Your task to perform on an android device: Open location settings Image 0: 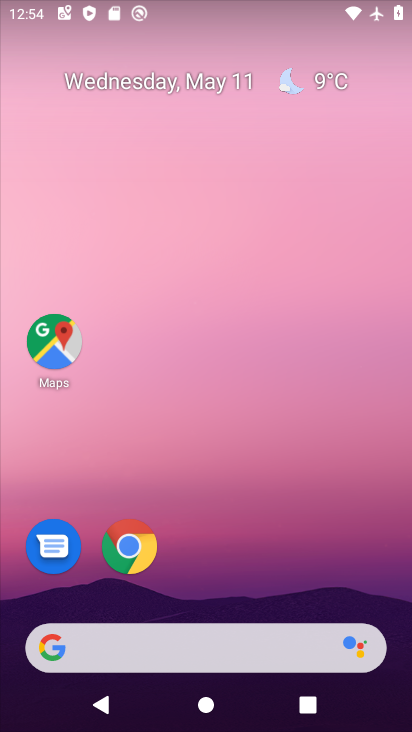
Step 0: drag from (337, 664) to (347, 67)
Your task to perform on an android device: Open location settings Image 1: 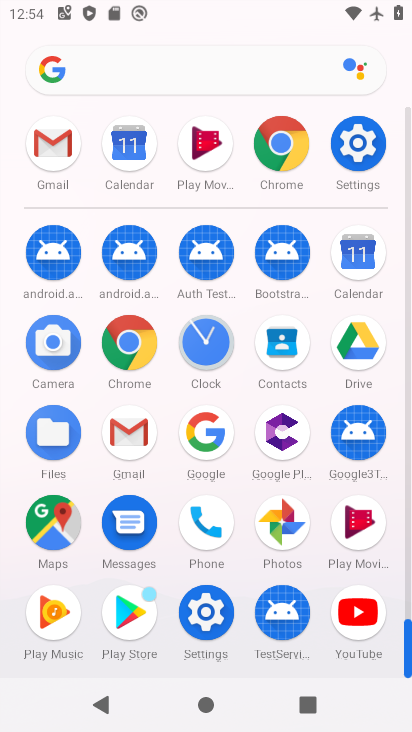
Step 1: click (370, 150)
Your task to perform on an android device: Open location settings Image 2: 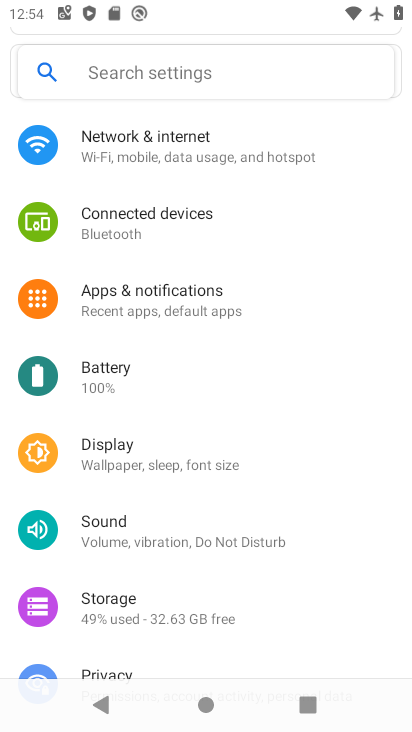
Step 2: drag from (226, 642) to (223, 217)
Your task to perform on an android device: Open location settings Image 3: 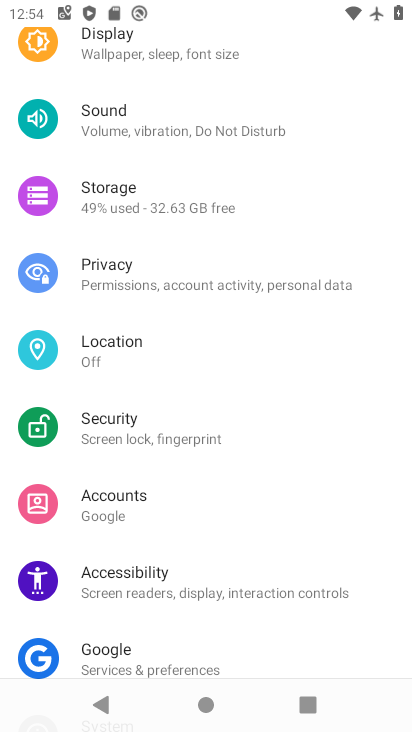
Step 3: click (163, 344)
Your task to perform on an android device: Open location settings Image 4: 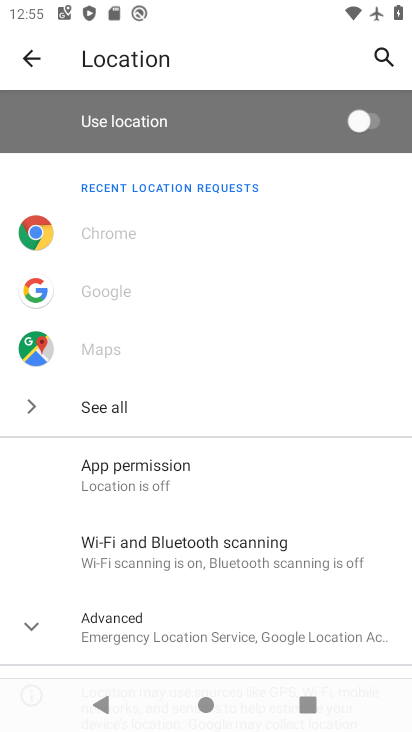
Step 4: task complete